Your task to perform on an android device: What's the weather like in Moscow? Image 0: 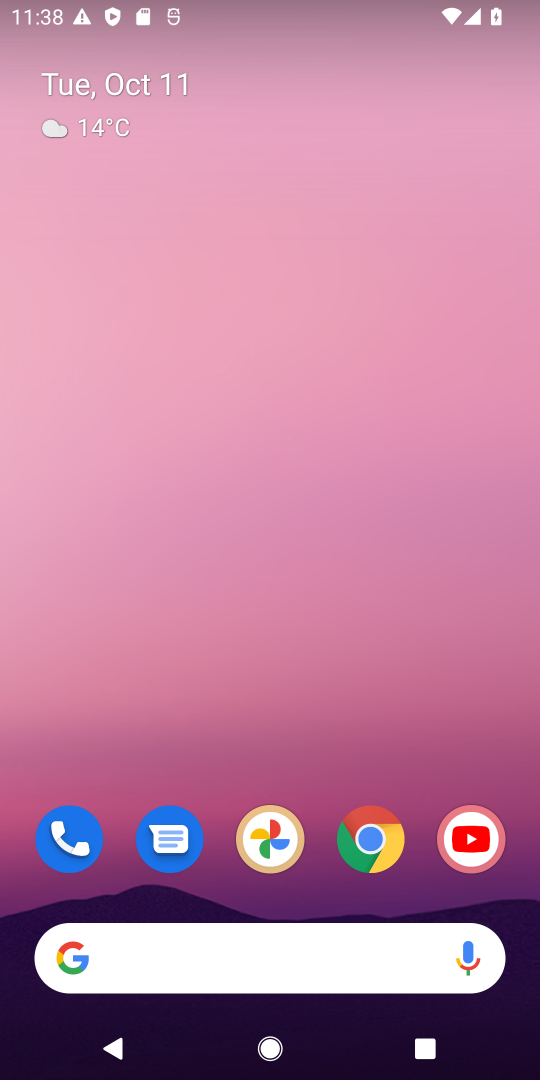
Step 0: click (339, 841)
Your task to perform on an android device: What's the weather like in Moscow? Image 1: 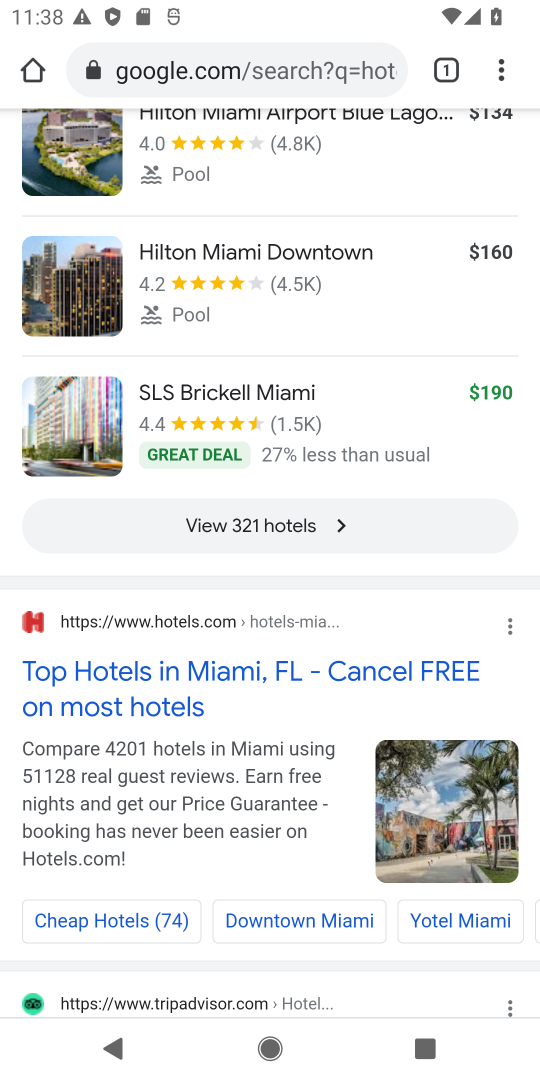
Step 1: click (214, 66)
Your task to perform on an android device: What's the weather like in Moscow? Image 2: 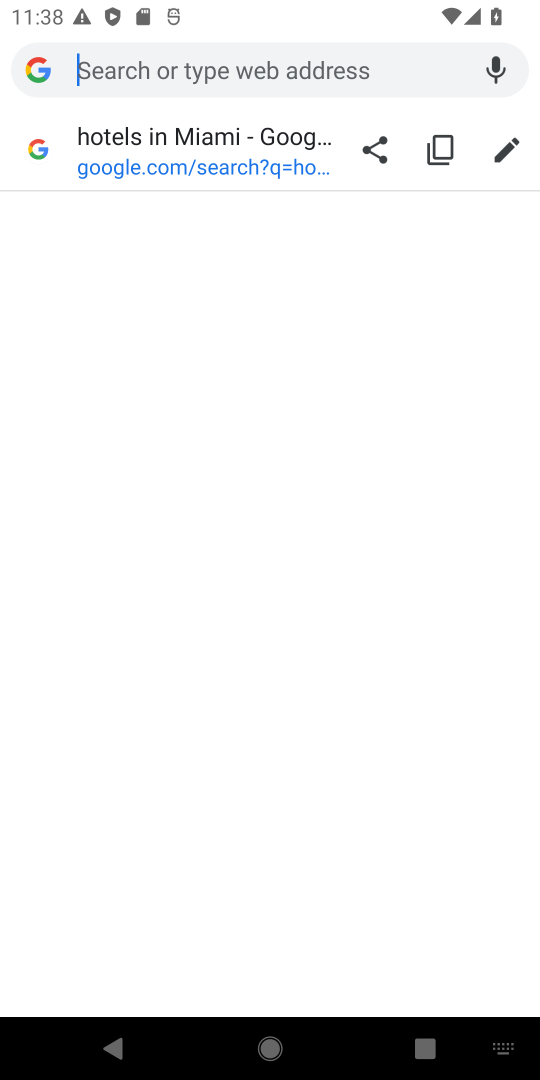
Step 2: type "weather like in Moscow"
Your task to perform on an android device: What's the weather like in Moscow? Image 3: 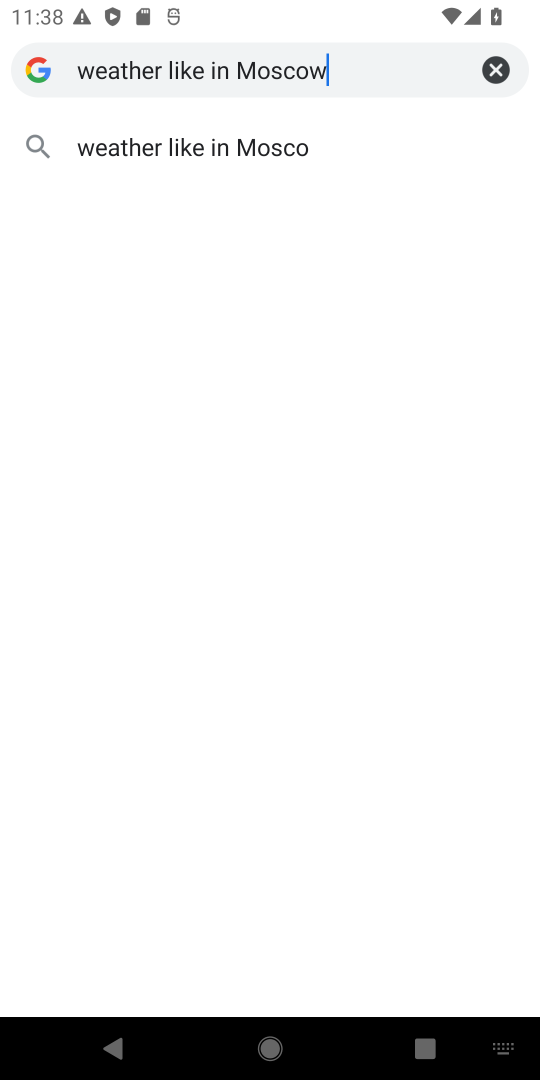
Step 3: type ""
Your task to perform on an android device: What's the weather like in Moscow? Image 4: 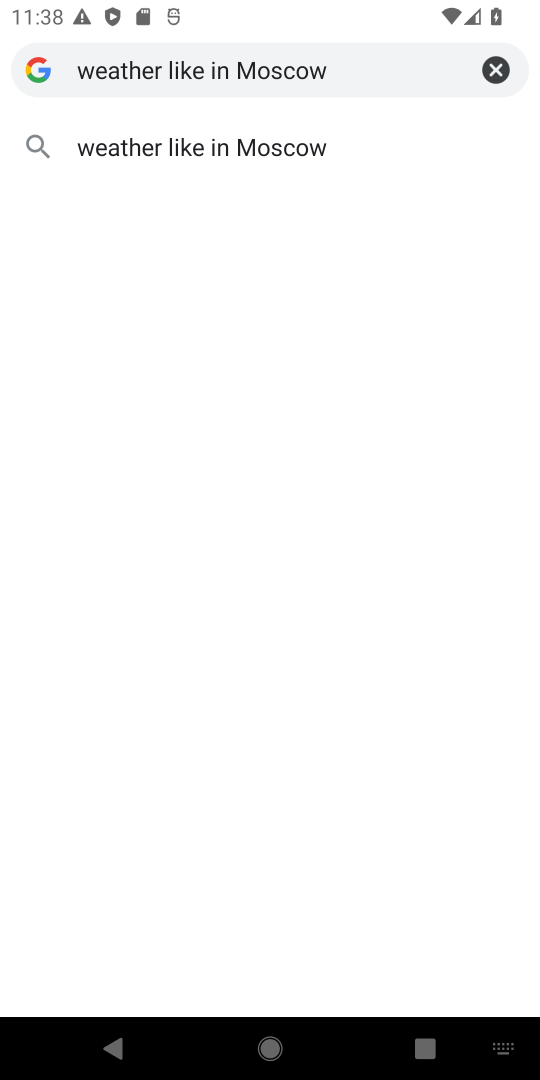
Step 4: click (306, 137)
Your task to perform on an android device: What's the weather like in Moscow? Image 5: 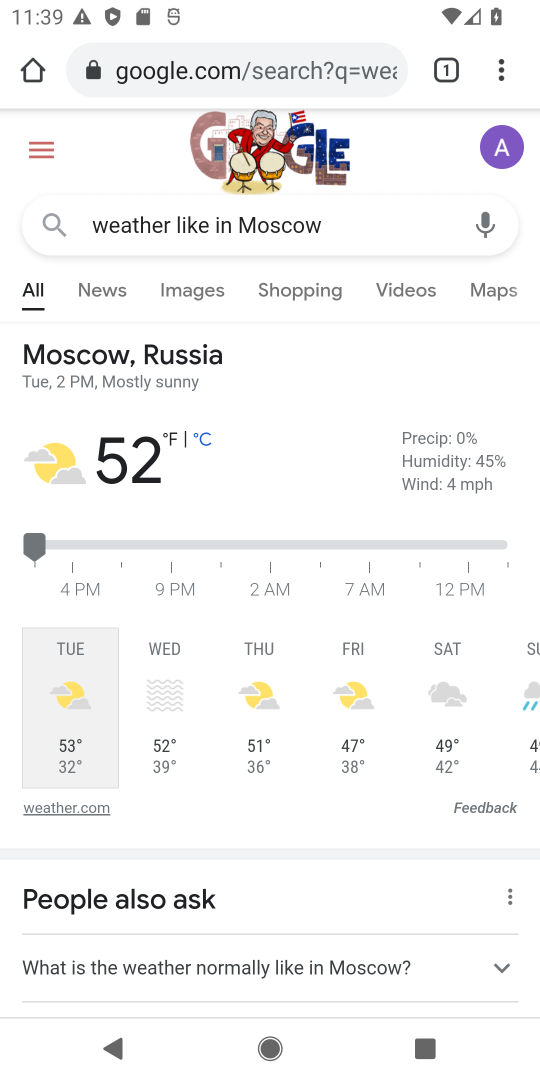
Step 5: task complete